Your task to perform on an android device: change notification settings in the gmail app Image 0: 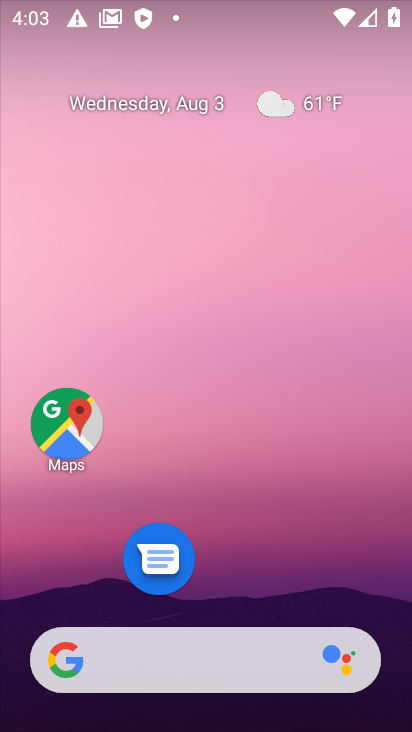
Step 0: drag from (194, 592) to (262, 121)
Your task to perform on an android device: change notification settings in the gmail app Image 1: 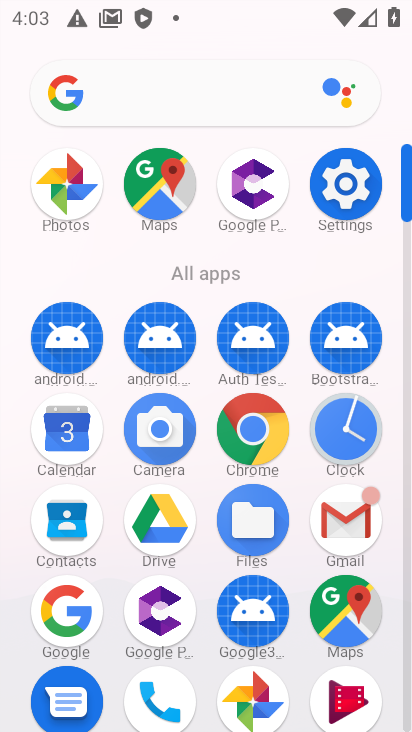
Step 1: click (331, 523)
Your task to perform on an android device: change notification settings in the gmail app Image 2: 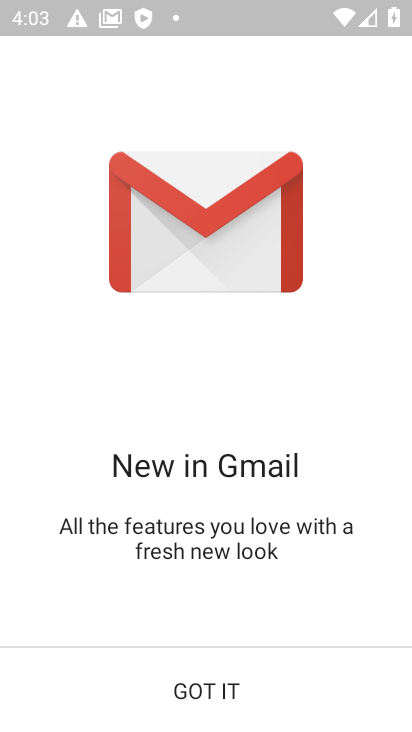
Step 2: click (234, 677)
Your task to perform on an android device: change notification settings in the gmail app Image 3: 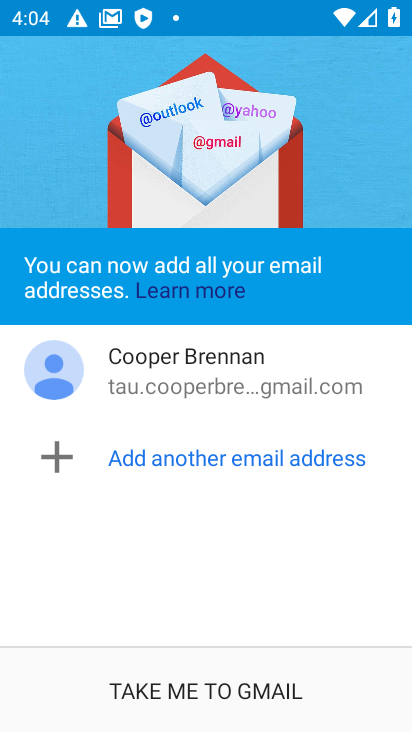
Step 3: click (213, 681)
Your task to perform on an android device: change notification settings in the gmail app Image 4: 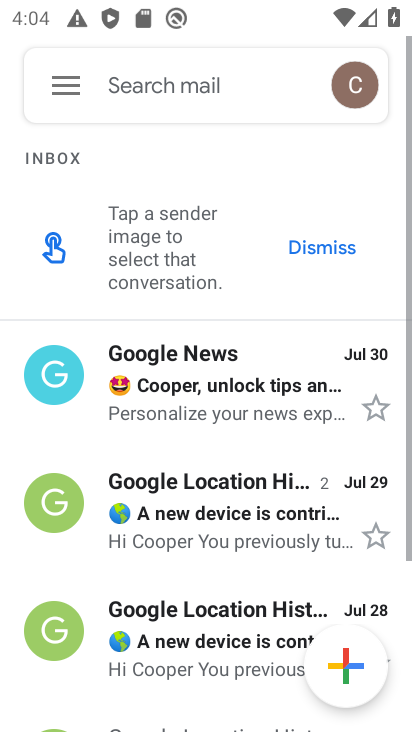
Step 4: click (67, 87)
Your task to perform on an android device: change notification settings in the gmail app Image 5: 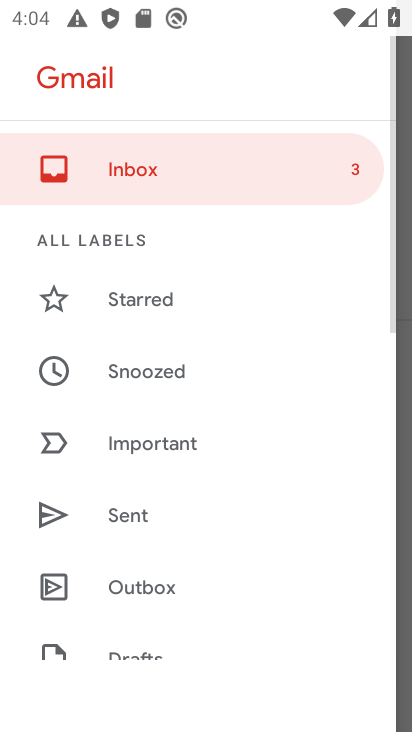
Step 5: drag from (142, 628) to (206, 86)
Your task to perform on an android device: change notification settings in the gmail app Image 6: 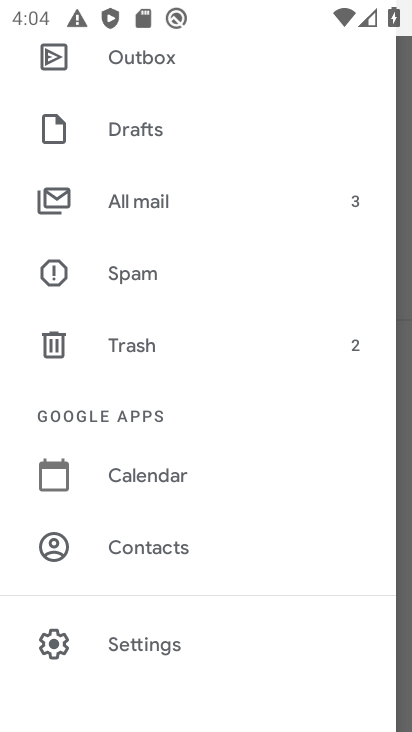
Step 6: click (160, 647)
Your task to perform on an android device: change notification settings in the gmail app Image 7: 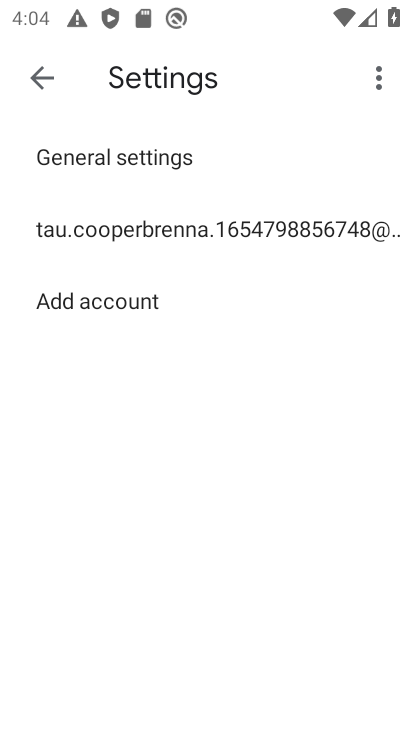
Step 7: click (154, 226)
Your task to perform on an android device: change notification settings in the gmail app Image 8: 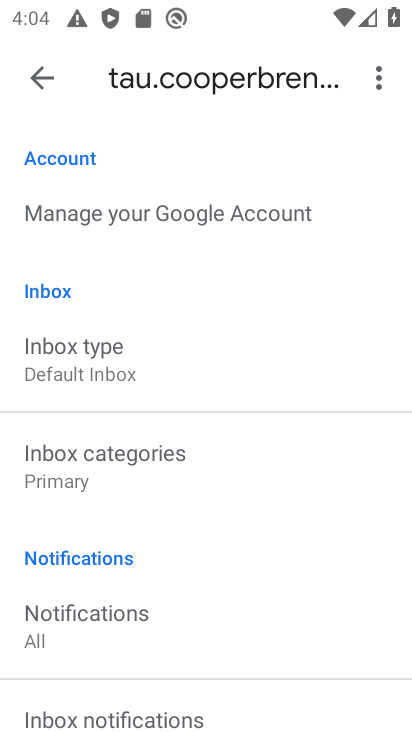
Step 8: click (119, 615)
Your task to perform on an android device: change notification settings in the gmail app Image 9: 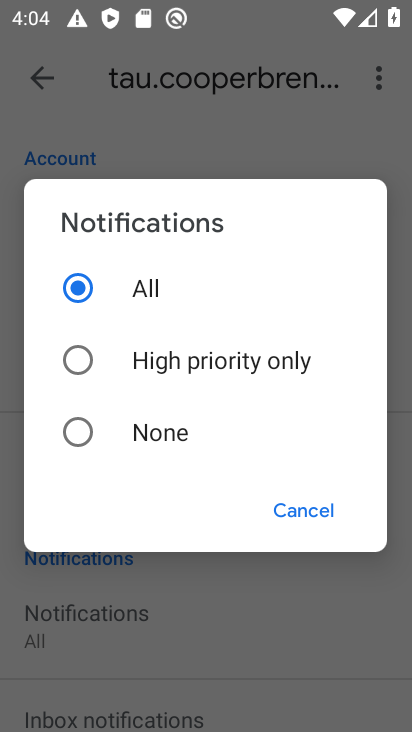
Step 9: click (158, 369)
Your task to perform on an android device: change notification settings in the gmail app Image 10: 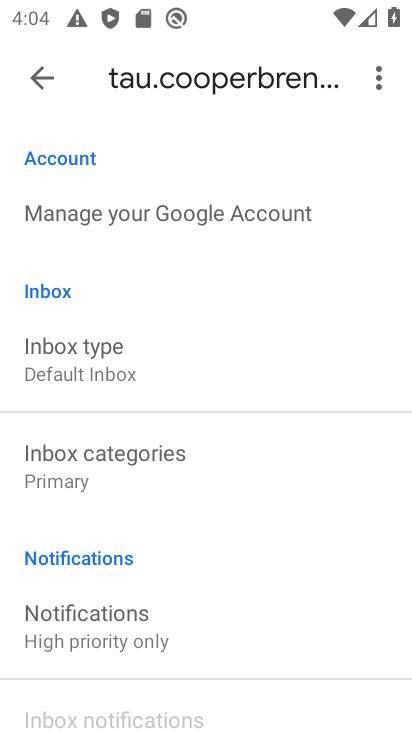
Step 10: task complete